Your task to perform on an android device: change the clock display to digital Image 0: 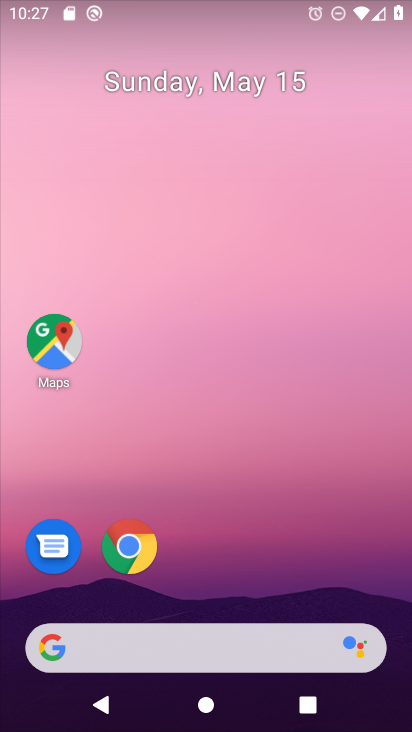
Step 0: click (358, 108)
Your task to perform on an android device: change the clock display to digital Image 1: 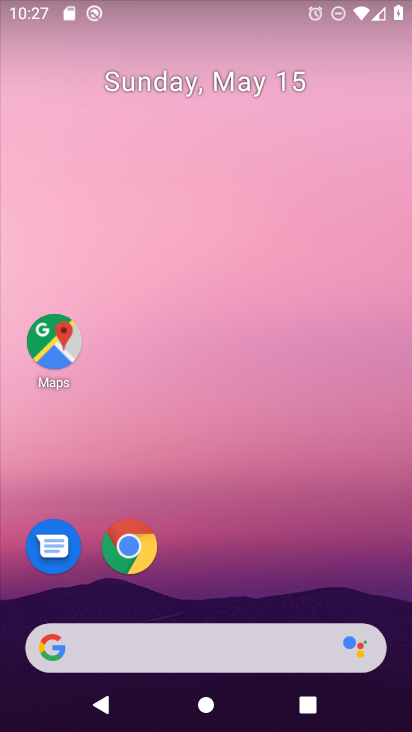
Step 1: click (369, 121)
Your task to perform on an android device: change the clock display to digital Image 2: 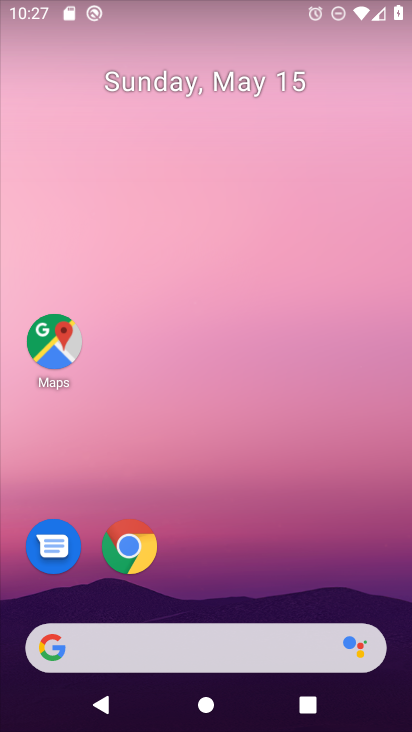
Step 2: drag from (275, 564) to (367, 102)
Your task to perform on an android device: change the clock display to digital Image 3: 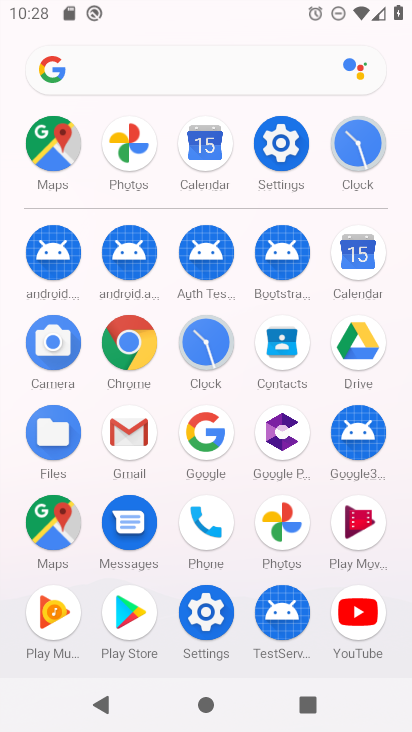
Step 3: click (223, 340)
Your task to perform on an android device: change the clock display to digital Image 4: 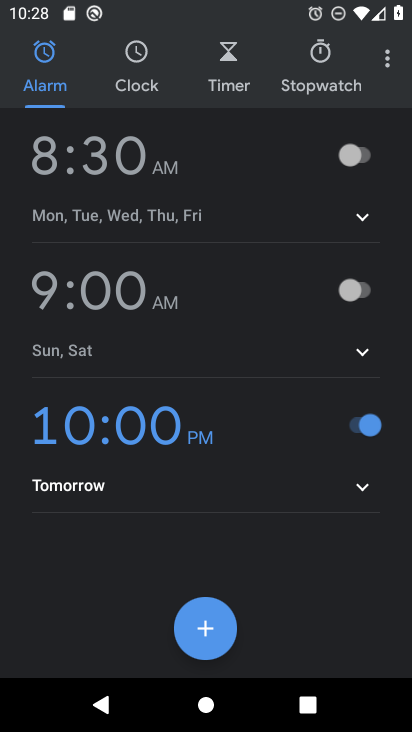
Step 4: drag from (397, 59) to (297, 101)
Your task to perform on an android device: change the clock display to digital Image 5: 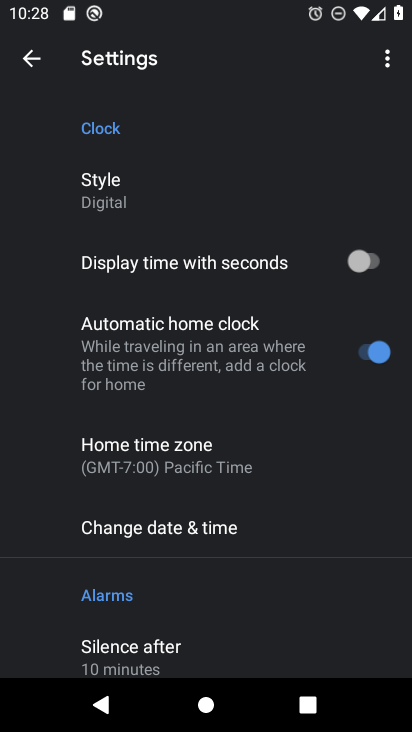
Step 5: click (120, 192)
Your task to perform on an android device: change the clock display to digital Image 6: 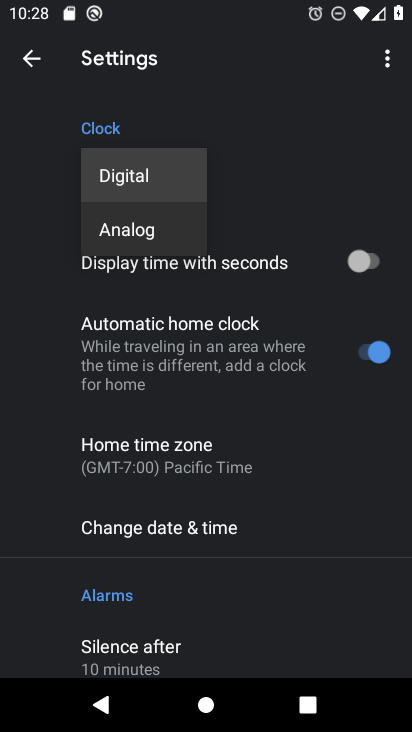
Step 6: task complete